Your task to perform on an android device: open wifi settings Image 0: 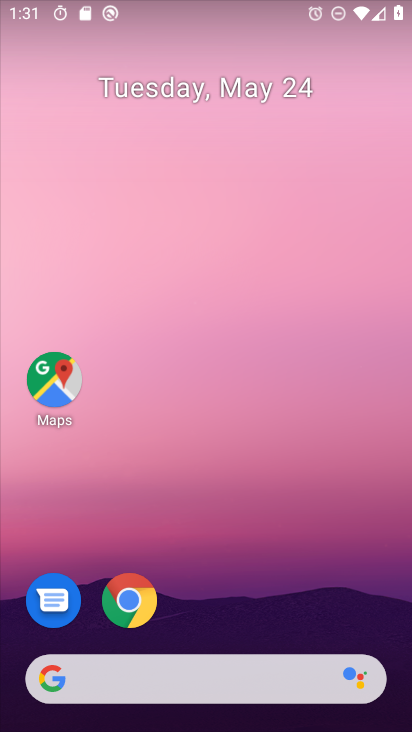
Step 0: drag from (172, 602) to (222, 203)
Your task to perform on an android device: open wifi settings Image 1: 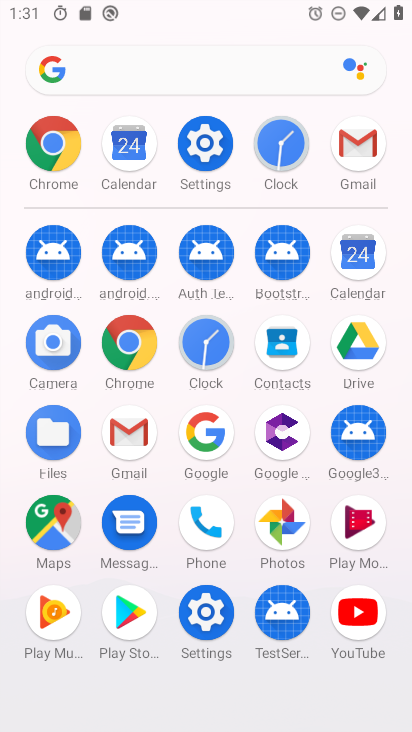
Step 1: click (203, 156)
Your task to perform on an android device: open wifi settings Image 2: 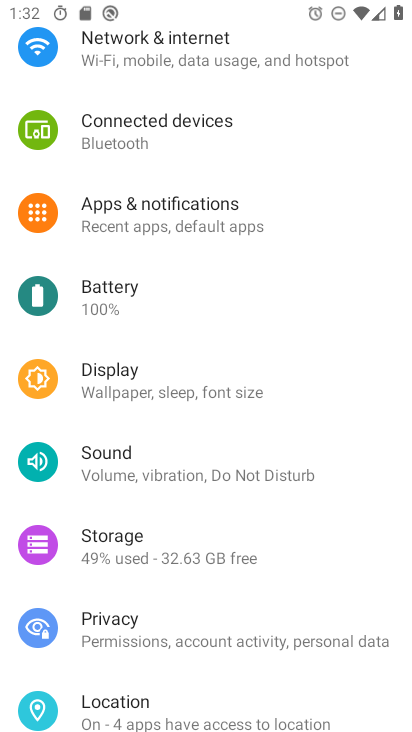
Step 2: drag from (180, 149) to (165, 578)
Your task to perform on an android device: open wifi settings Image 3: 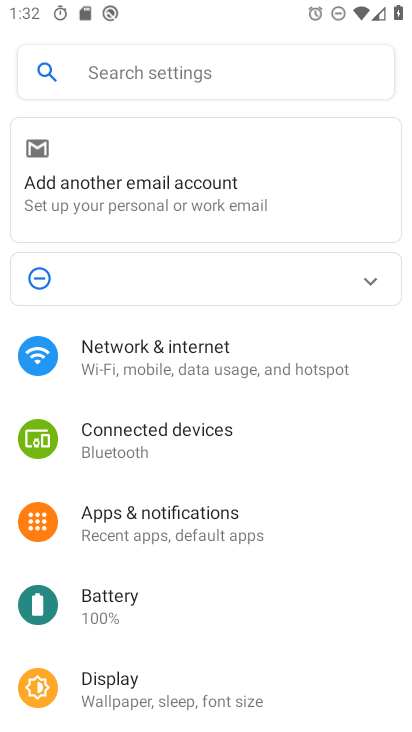
Step 3: click (170, 352)
Your task to perform on an android device: open wifi settings Image 4: 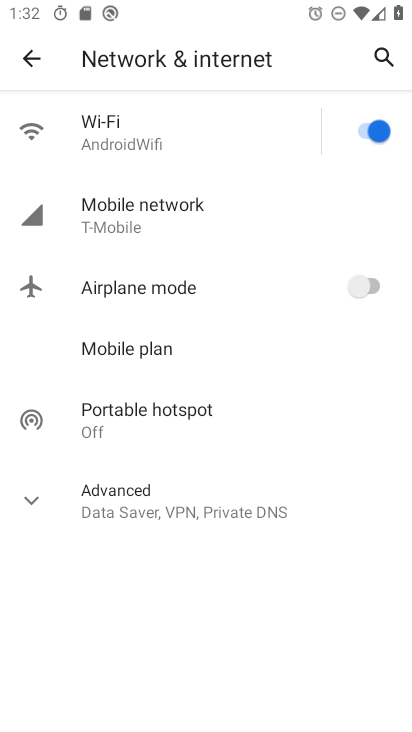
Step 4: click (179, 139)
Your task to perform on an android device: open wifi settings Image 5: 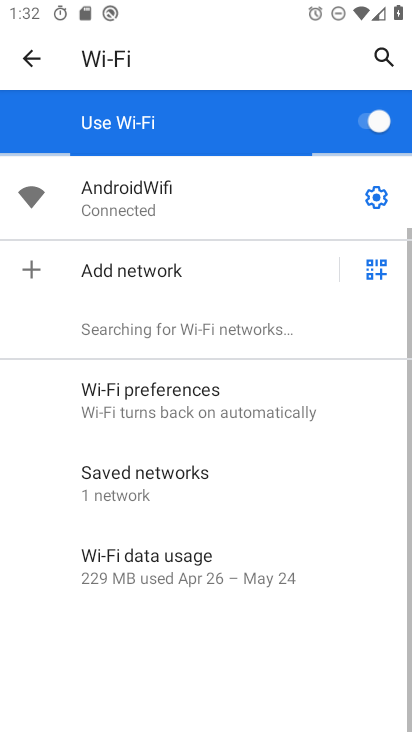
Step 5: click (368, 191)
Your task to perform on an android device: open wifi settings Image 6: 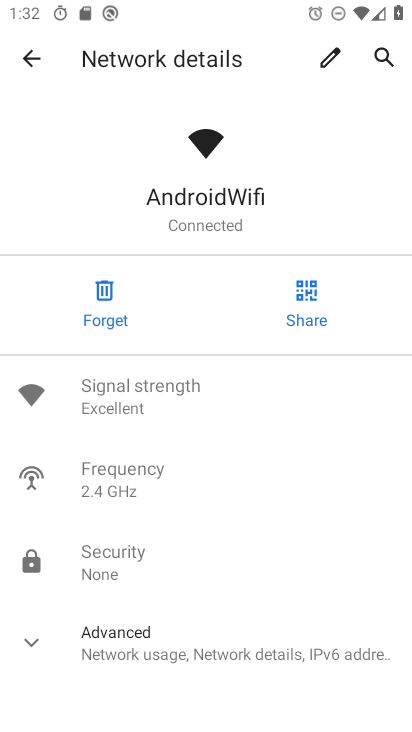
Step 6: task complete